Your task to perform on an android device: Go to display settings Image 0: 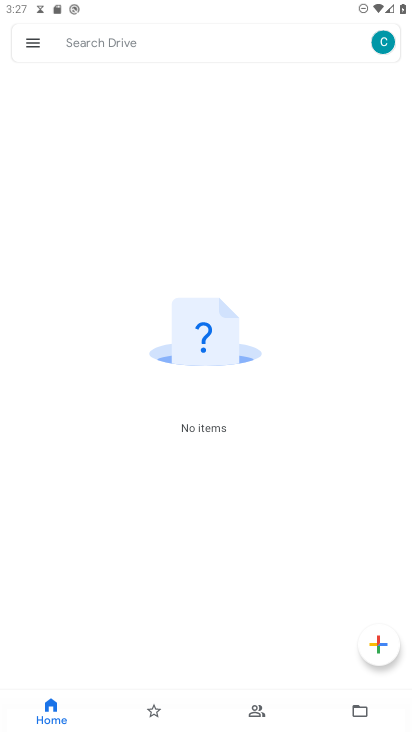
Step 0: press home button
Your task to perform on an android device: Go to display settings Image 1: 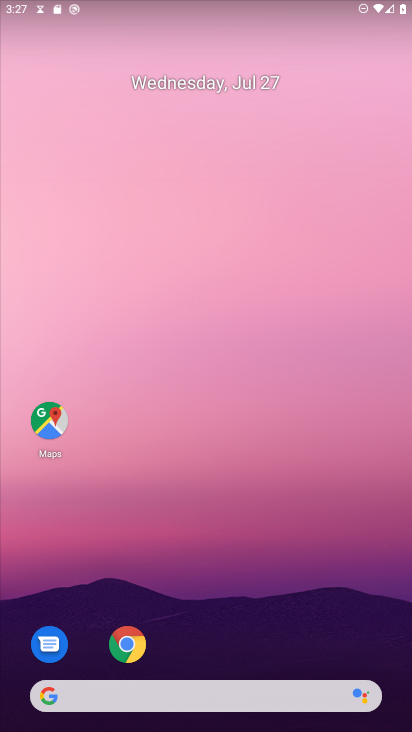
Step 1: drag from (223, 646) to (156, 22)
Your task to perform on an android device: Go to display settings Image 2: 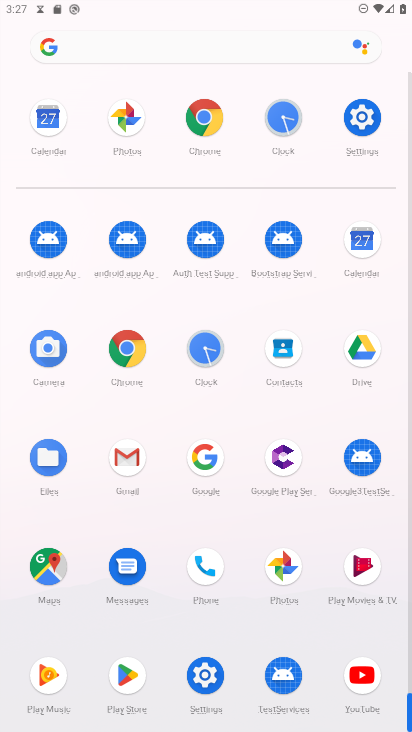
Step 2: click (203, 672)
Your task to perform on an android device: Go to display settings Image 3: 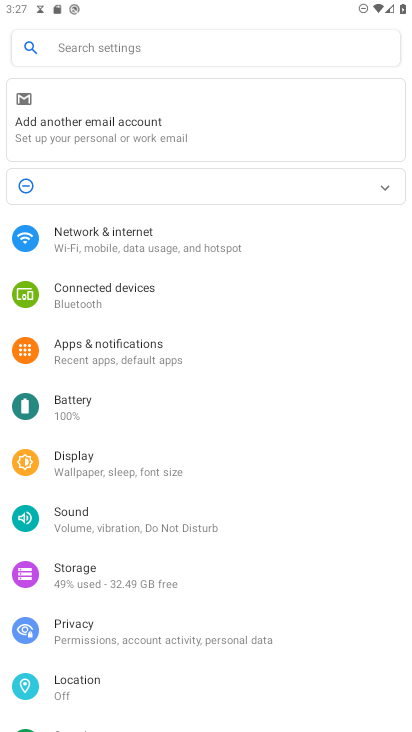
Step 3: click (116, 470)
Your task to perform on an android device: Go to display settings Image 4: 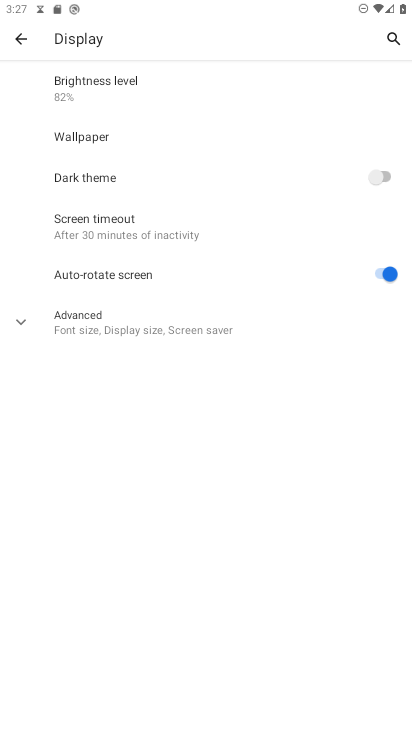
Step 4: task complete